Your task to perform on an android device: Toggle the flashlight Image 0: 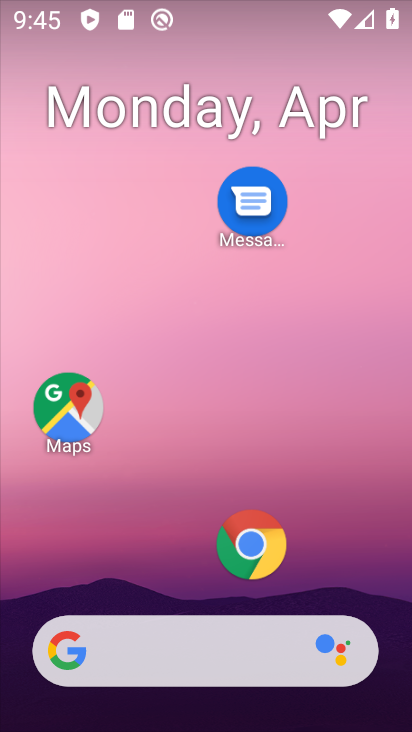
Step 0: press home button
Your task to perform on an android device: Toggle the flashlight Image 1: 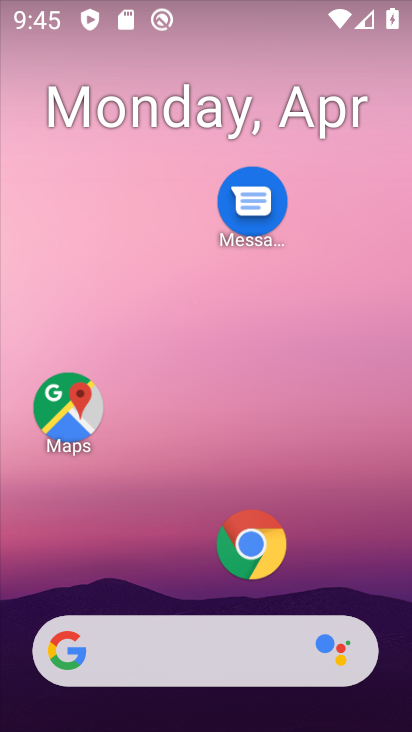
Step 1: drag from (203, 586) to (215, 91)
Your task to perform on an android device: Toggle the flashlight Image 2: 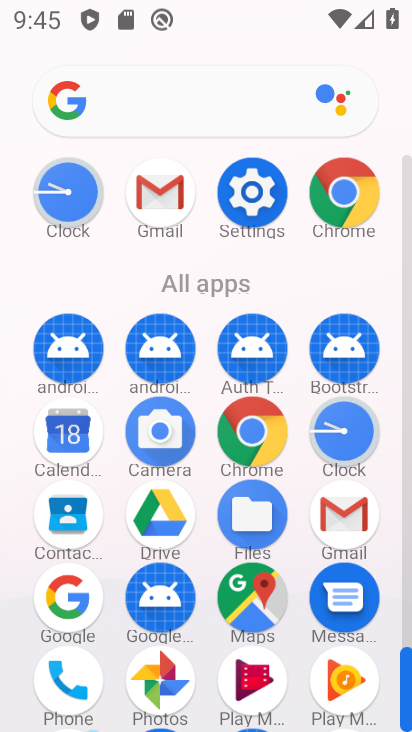
Step 2: click (250, 184)
Your task to perform on an android device: Toggle the flashlight Image 3: 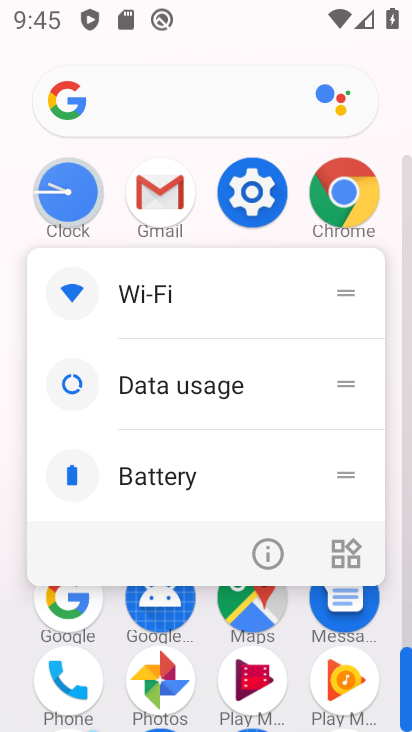
Step 3: click (251, 185)
Your task to perform on an android device: Toggle the flashlight Image 4: 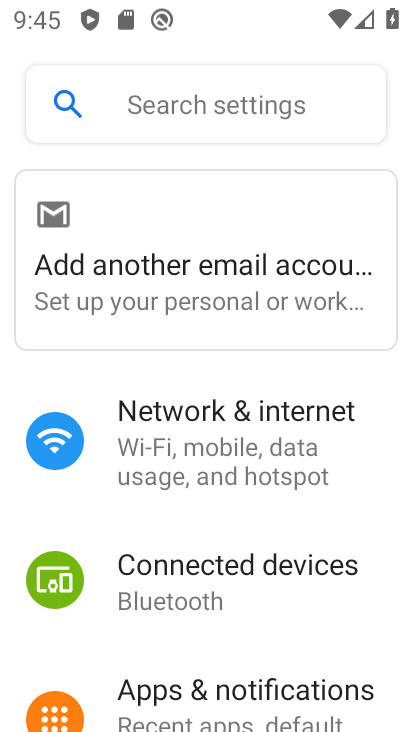
Step 4: click (200, 103)
Your task to perform on an android device: Toggle the flashlight Image 5: 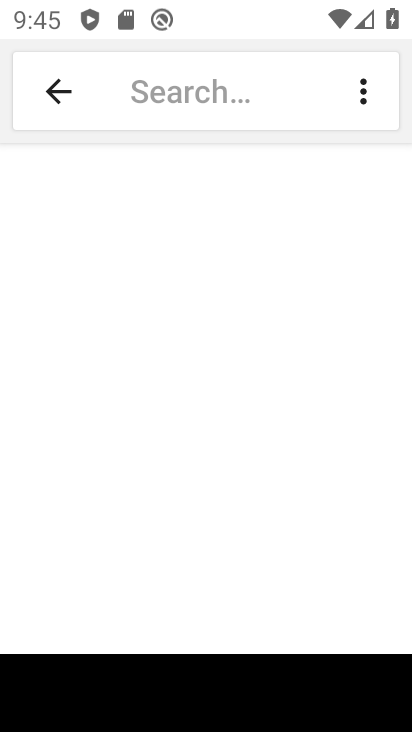
Step 5: type "flashlight"
Your task to perform on an android device: Toggle the flashlight Image 6: 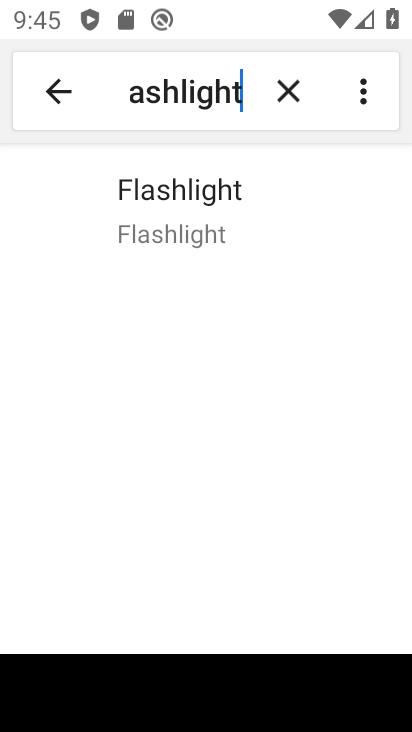
Step 6: click (236, 217)
Your task to perform on an android device: Toggle the flashlight Image 7: 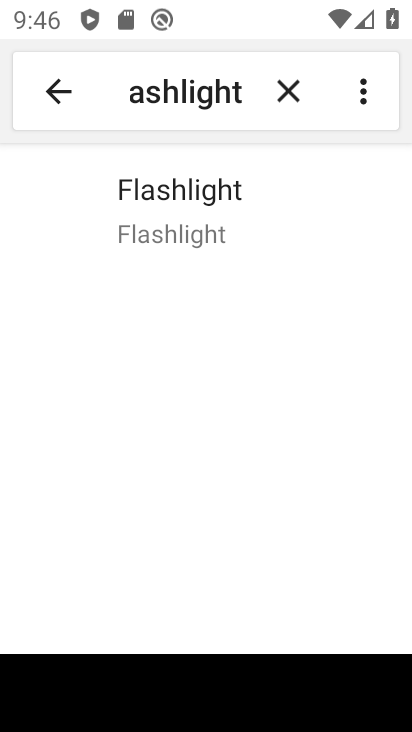
Step 7: click (233, 207)
Your task to perform on an android device: Toggle the flashlight Image 8: 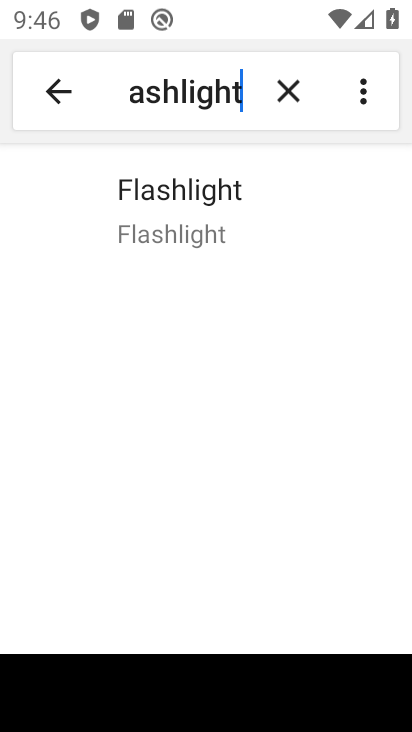
Step 8: task complete